Your task to perform on an android device: snooze an email in the gmail app Image 0: 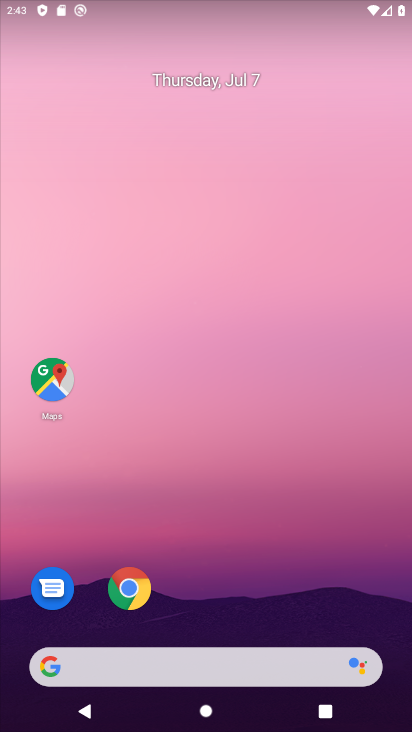
Step 0: drag from (187, 631) to (186, 246)
Your task to perform on an android device: snooze an email in the gmail app Image 1: 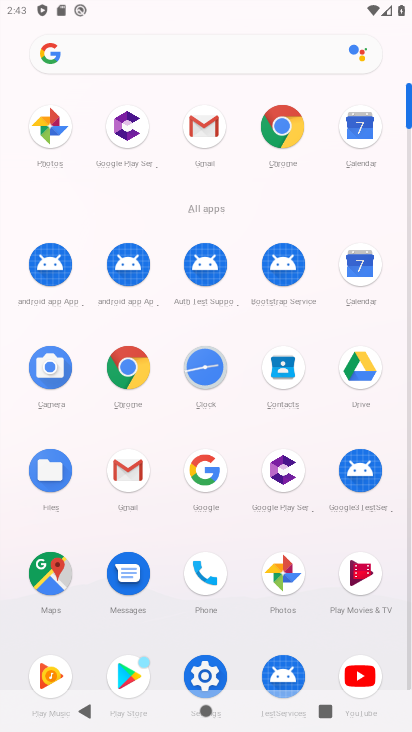
Step 1: click (198, 140)
Your task to perform on an android device: snooze an email in the gmail app Image 2: 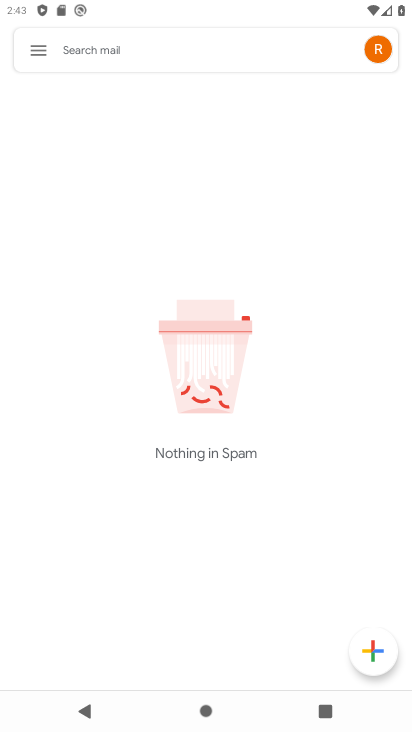
Step 2: click (25, 48)
Your task to perform on an android device: snooze an email in the gmail app Image 3: 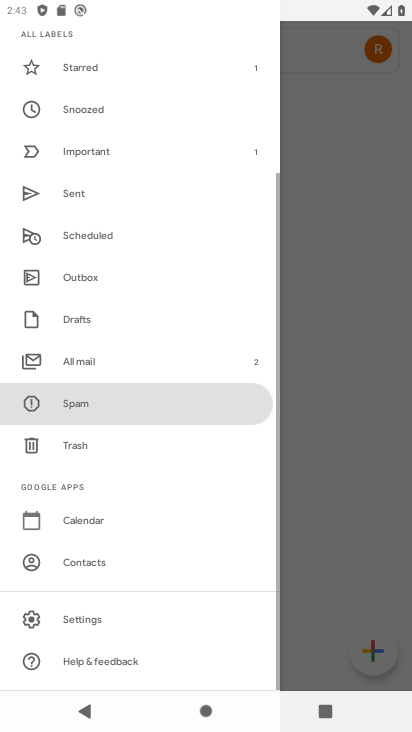
Step 3: drag from (98, 209) to (132, 464)
Your task to perform on an android device: snooze an email in the gmail app Image 4: 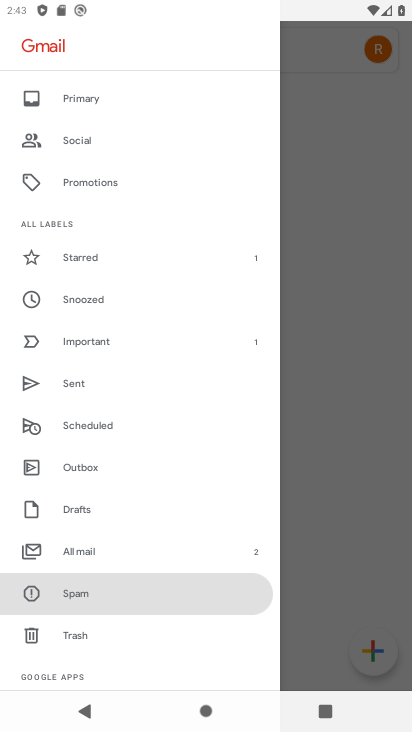
Step 4: click (75, 106)
Your task to perform on an android device: snooze an email in the gmail app Image 5: 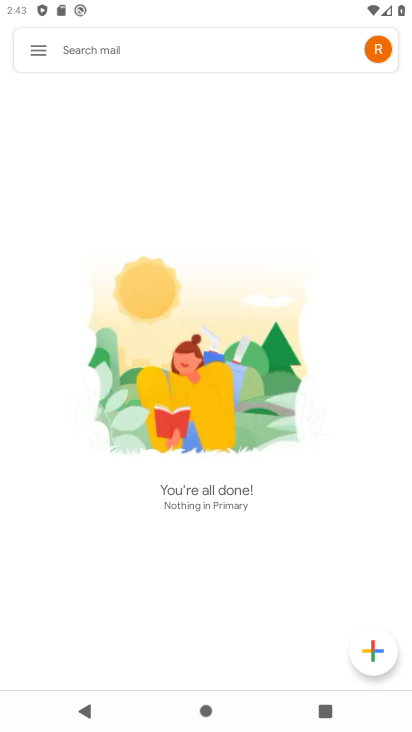
Step 5: task complete